Your task to perform on an android device: turn off wifi Image 0: 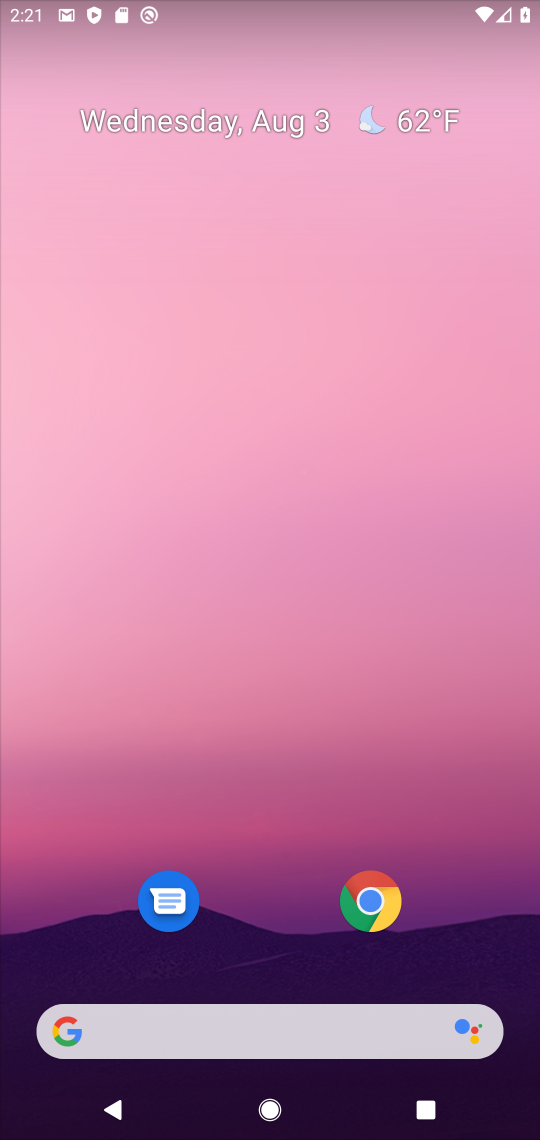
Step 0: drag from (277, 943) to (238, 346)
Your task to perform on an android device: turn off wifi Image 1: 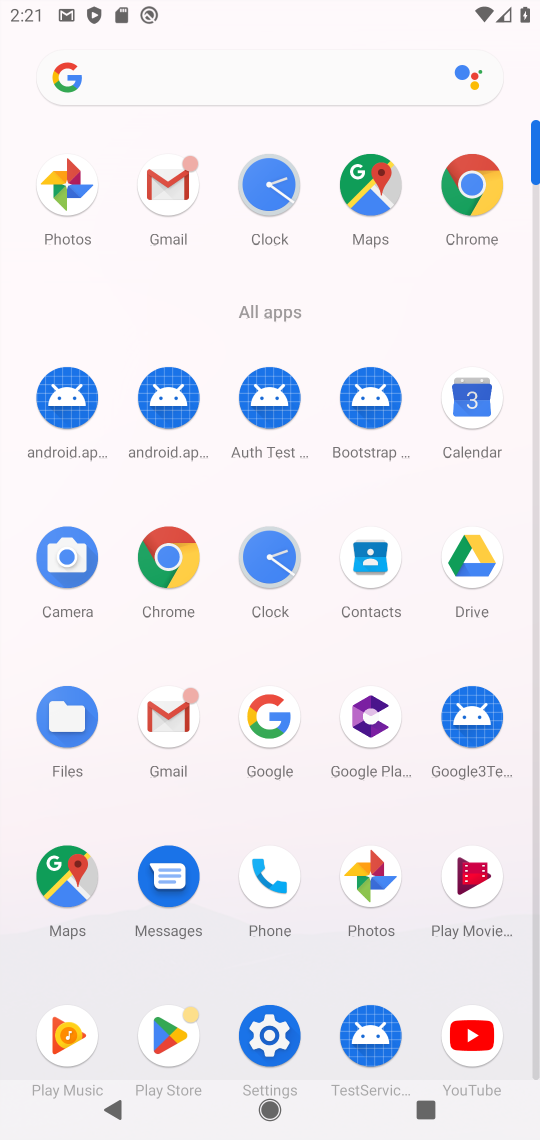
Step 1: click (259, 1030)
Your task to perform on an android device: turn off wifi Image 2: 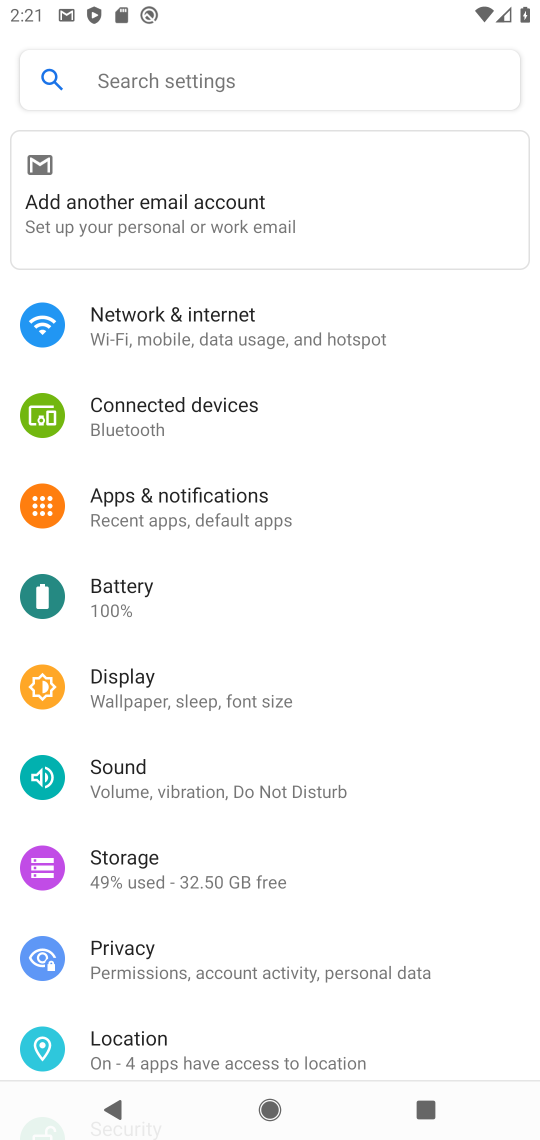
Step 2: click (199, 304)
Your task to perform on an android device: turn off wifi Image 3: 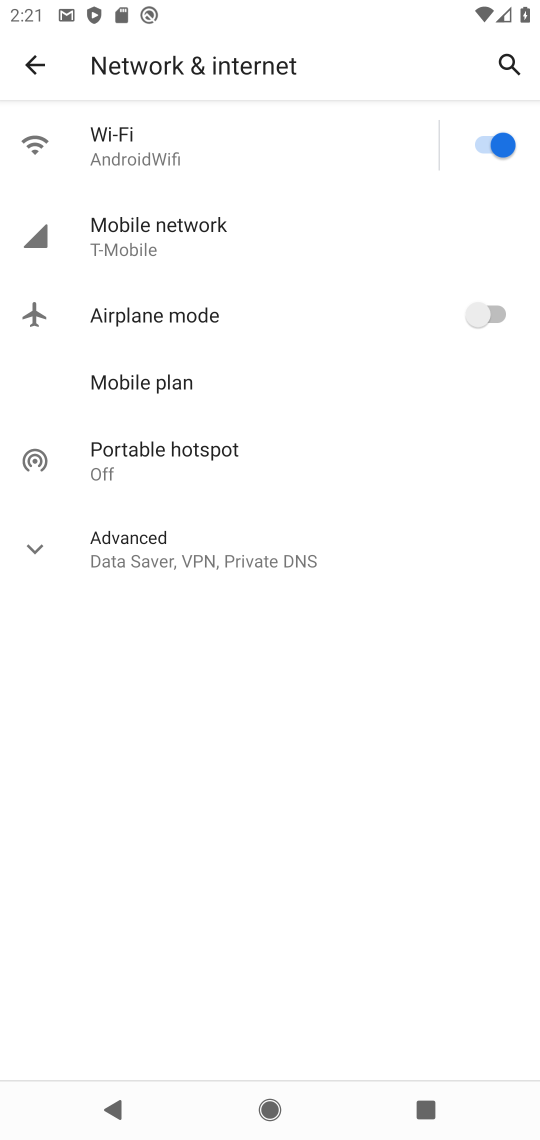
Step 3: click (499, 130)
Your task to perform on an android device: turn off wifi Image 4: 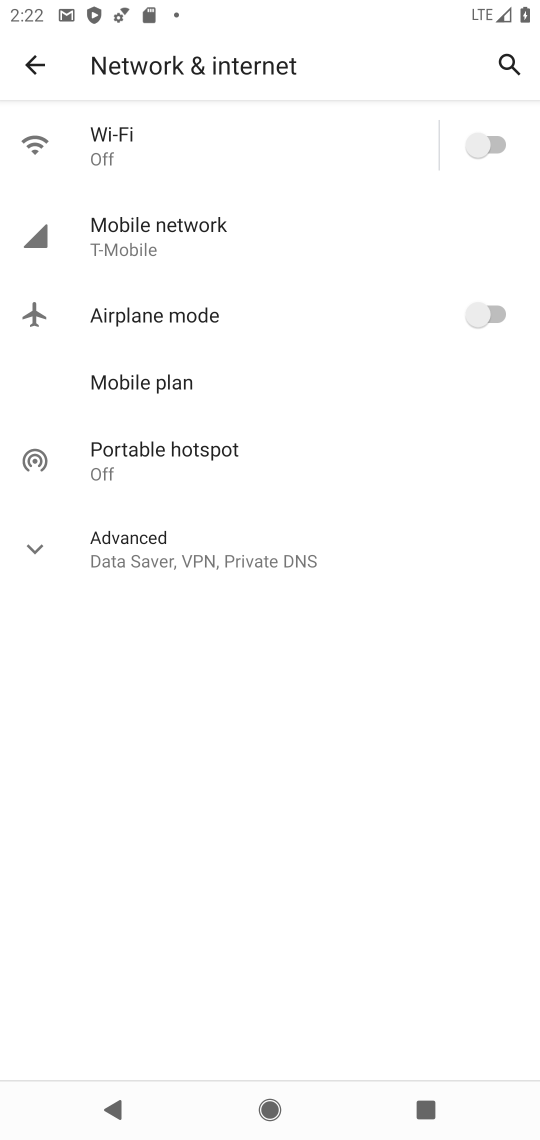
Step 4: task complete